Your task to perform on an android device: open a new tab in the chrome app Image 0: 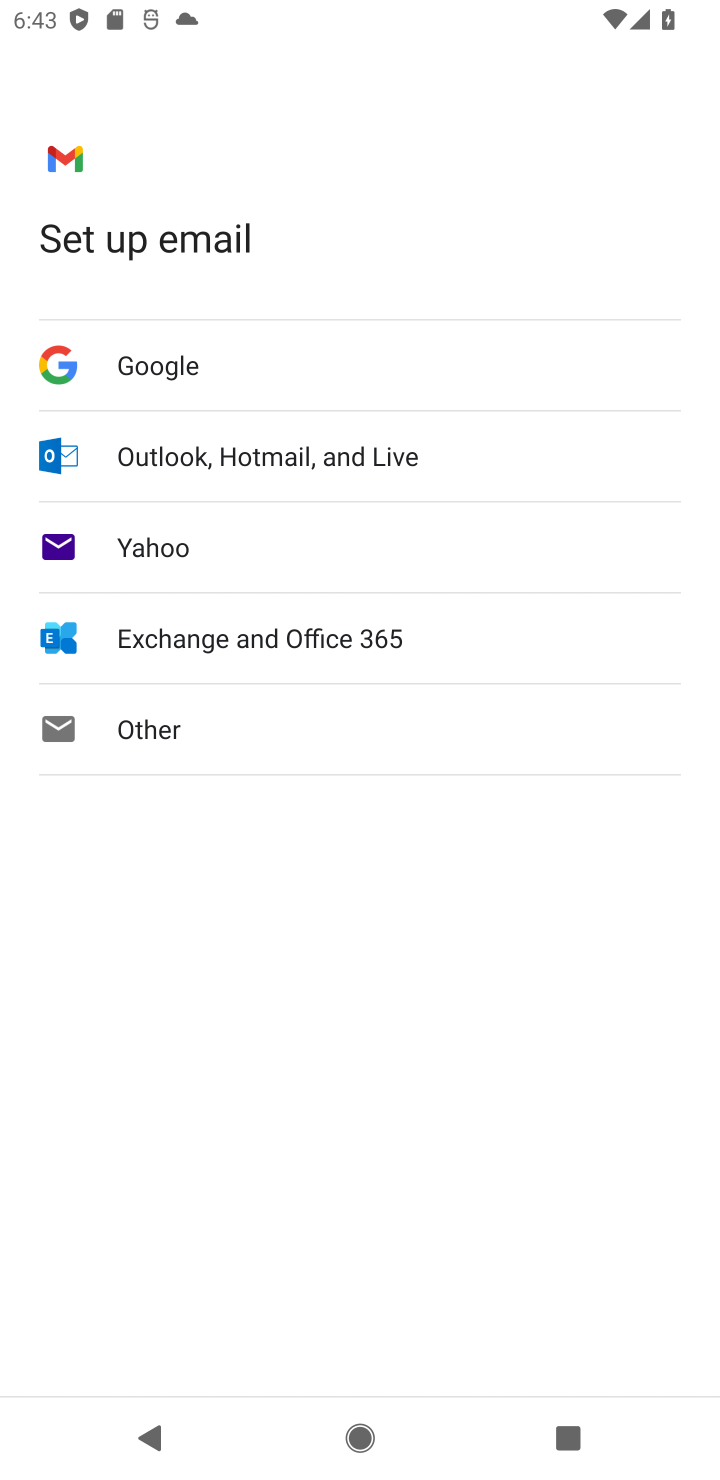
Step 0: press home button
Your task to perform on an android device: open a new tab in the chrome app Image 1: 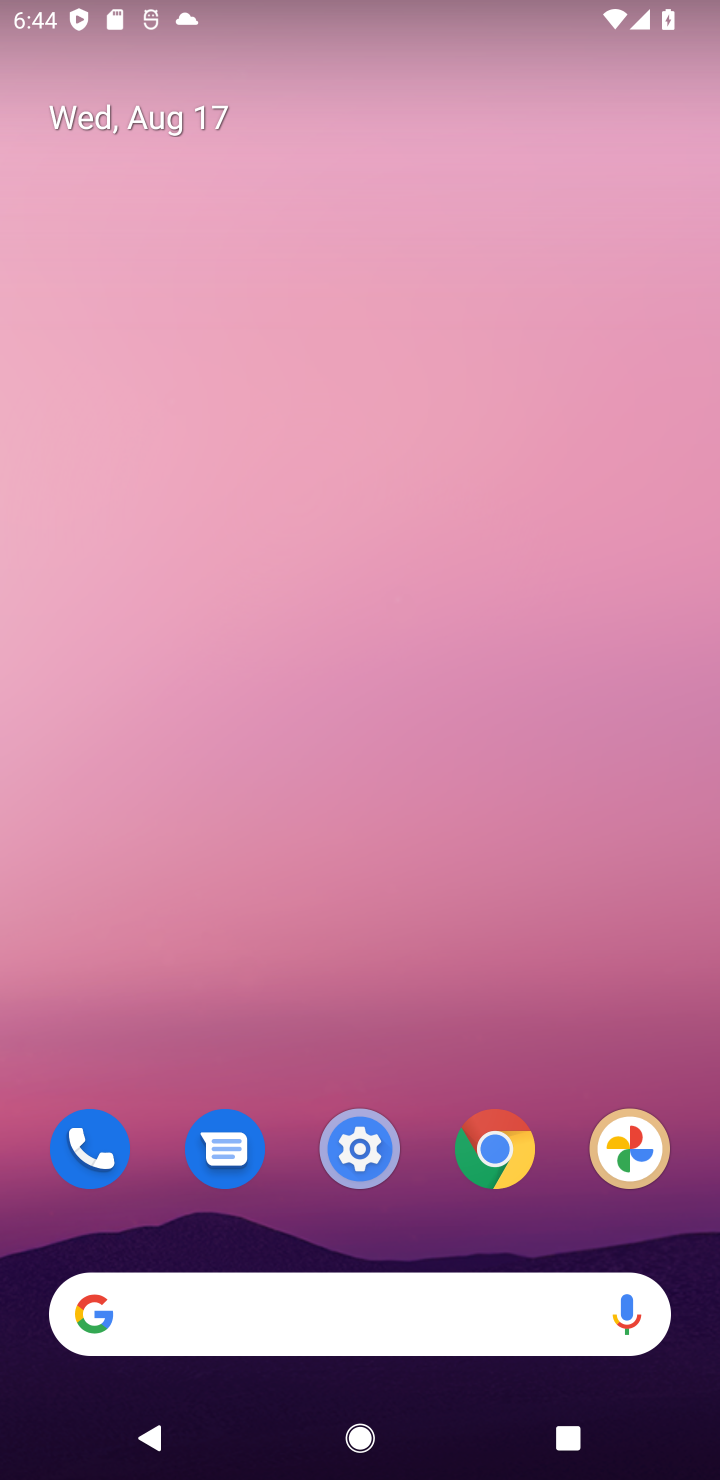
Step 1: click (498, 1158)
Your task to perform on an android device: open a new tab in the chrome app Image 2: 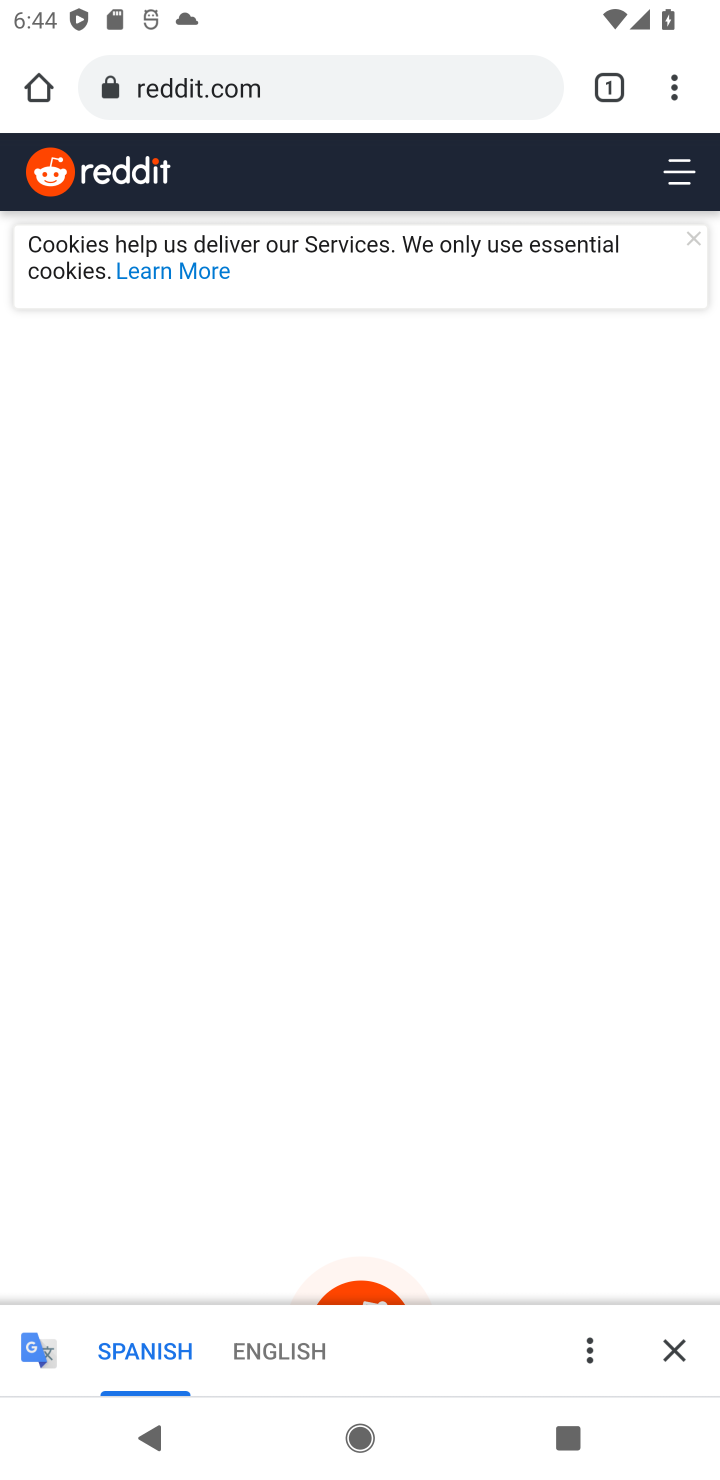
Step 2: click (671, 78)
Your task to perform on an android device: open a new tab in the chrome app Image 3: 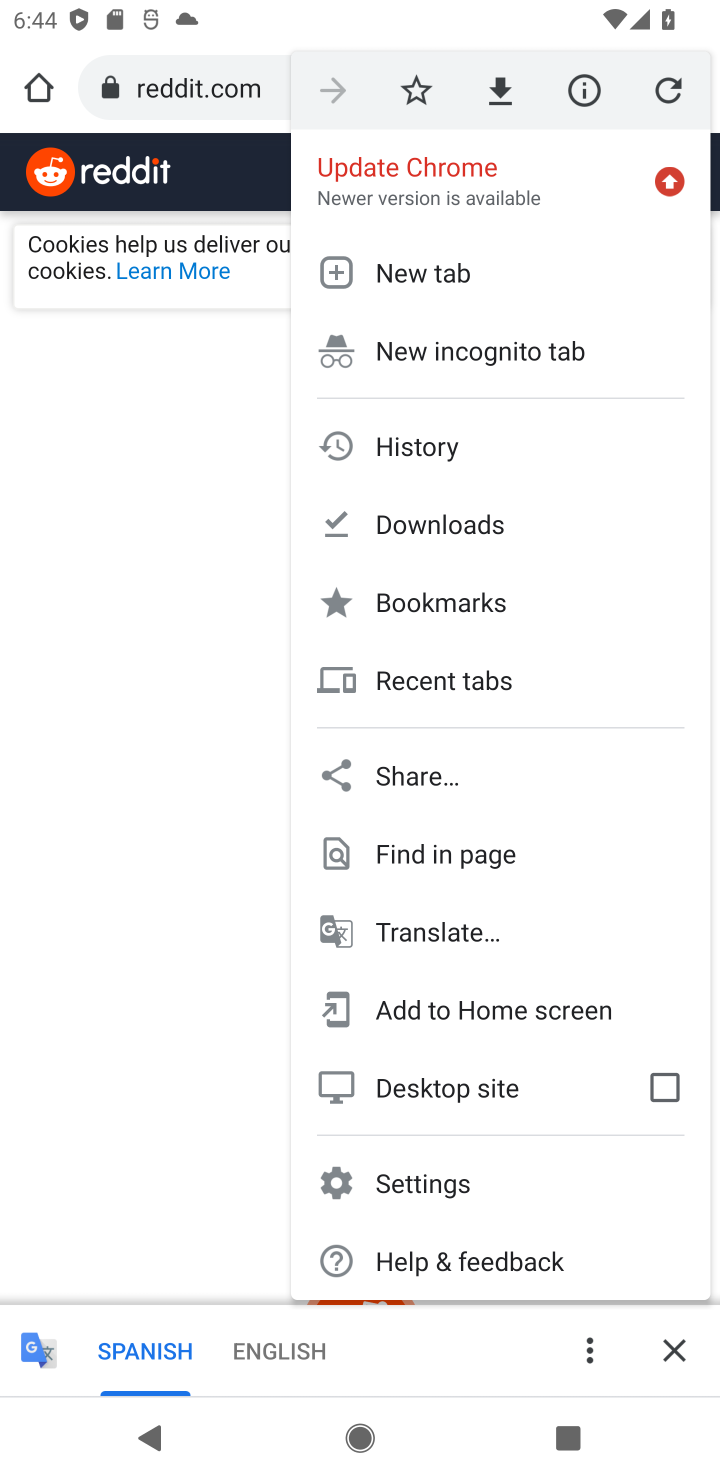
Step 3: click (429, 269)
Your task to perform on an android device: open a new tab in the chrome app Image 4: 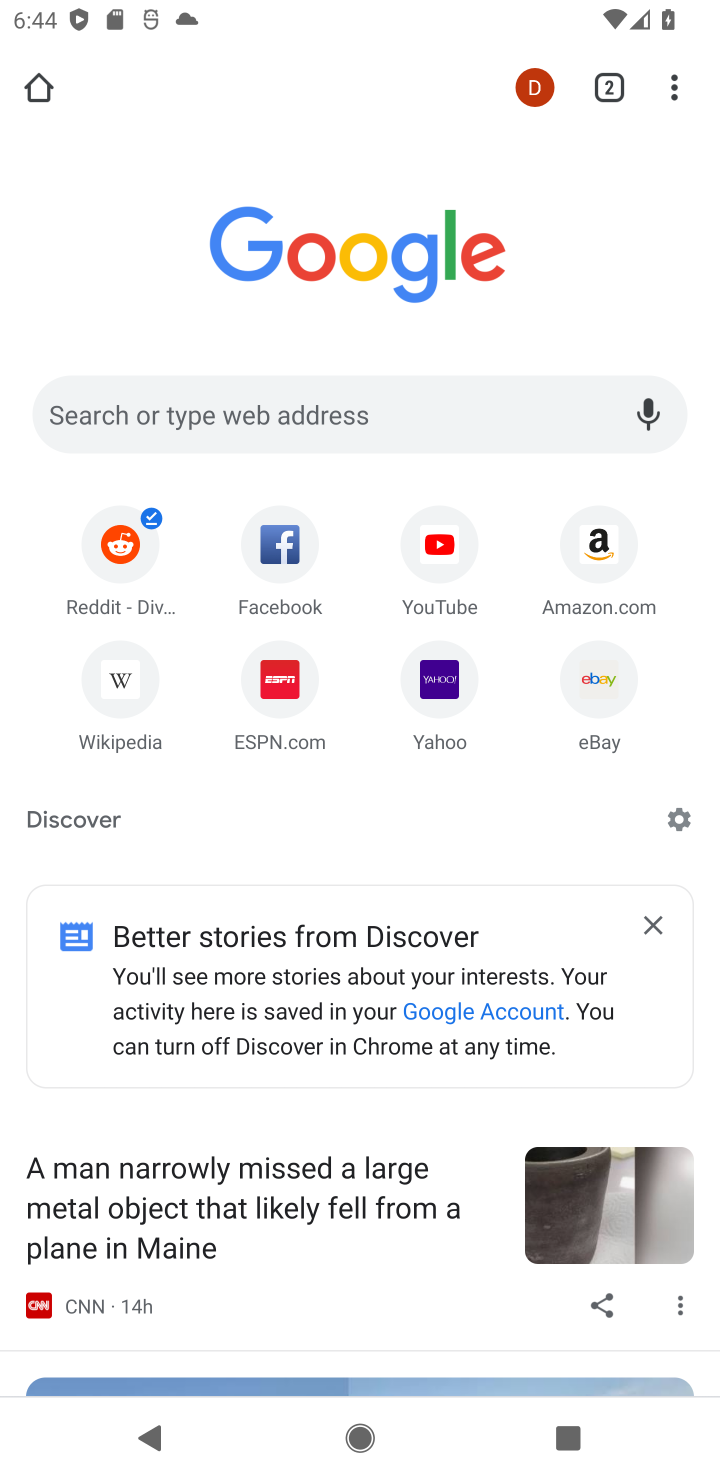
Step 4: task complete